Your task to perform on an android device: turn off notifications in google photos Image 0: 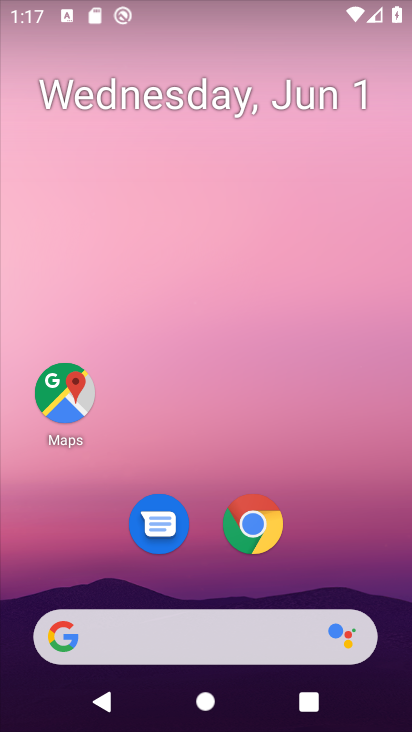
Step 0: drag from (208, 438) to (229, 42)
Your task to perform on an android device: turn off notifications in google photos Image 1: 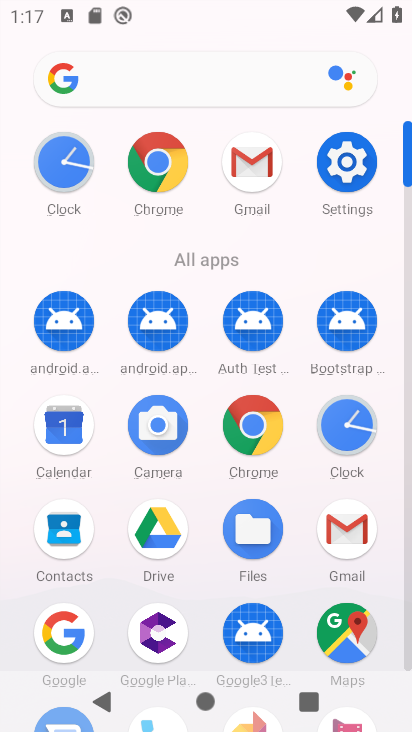
Step 1: drag from (290, 405) to (302, 117)
Your task to perform on an android device: turn off notifications in google photos Image 2: 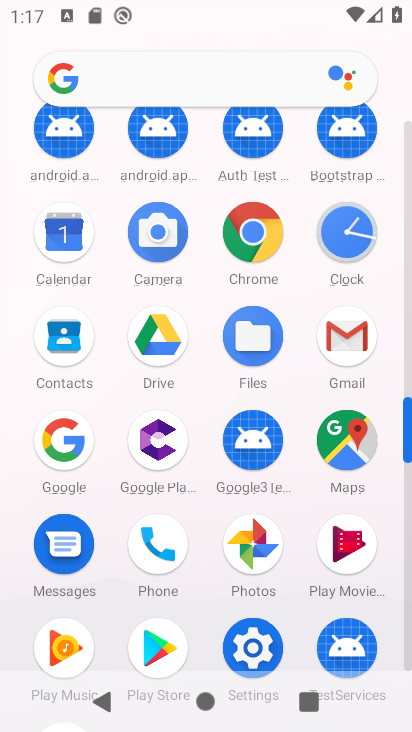
Step 2: click (254, 534)
Your task to perform on an android device: turn off notifications in google photos Image 3: 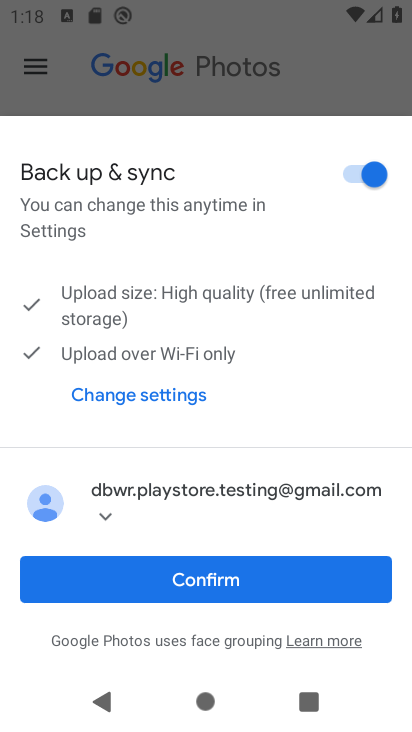
Step 3: click (241, 573)
Your task to perform on an android device: turn off notifications in google photos Image 4: 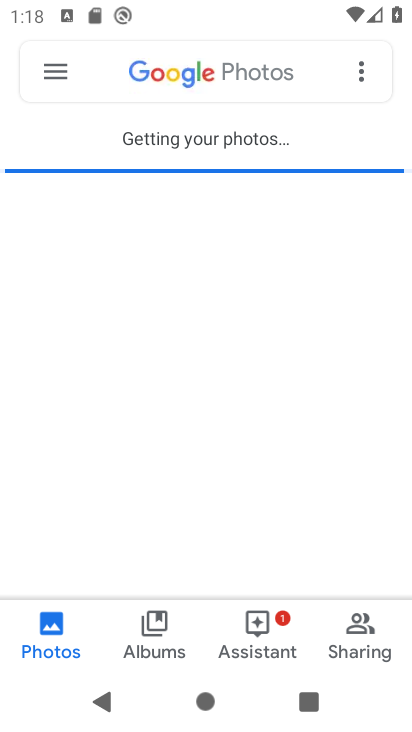
Step 4: click (57, 67)
Your task to perform on an android device: turn off notifications in google photos Image 5: 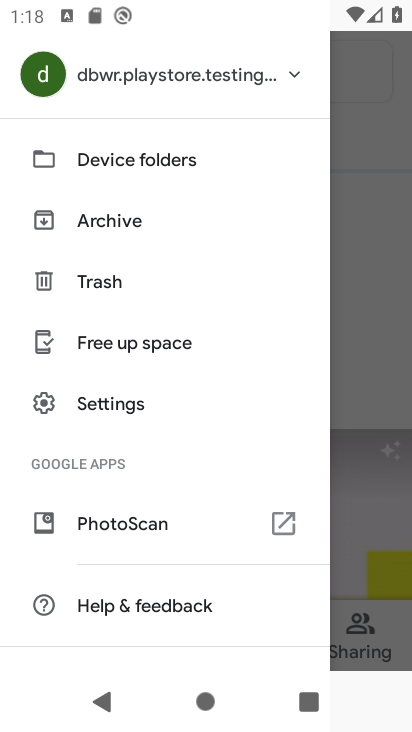
Step 5: drag from (195, 401) to (202, 226)
Your task to perform on an android device: turn off notifications in google photos Image 6: 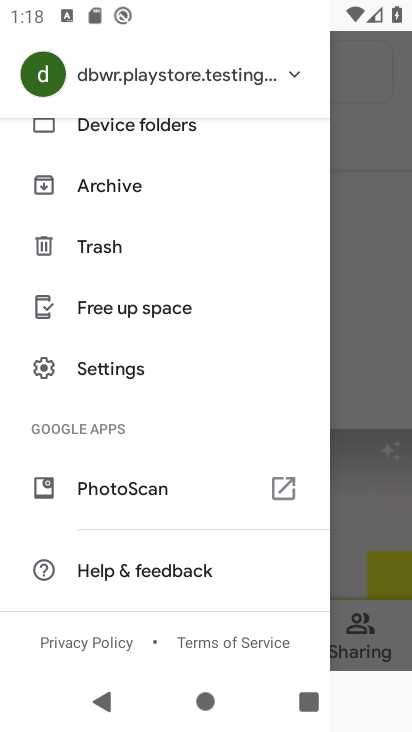
Step 6: drag from (162, 190) to (117, 462)
Your task to perform on an android device: turn off notifications in google photos Image 7: 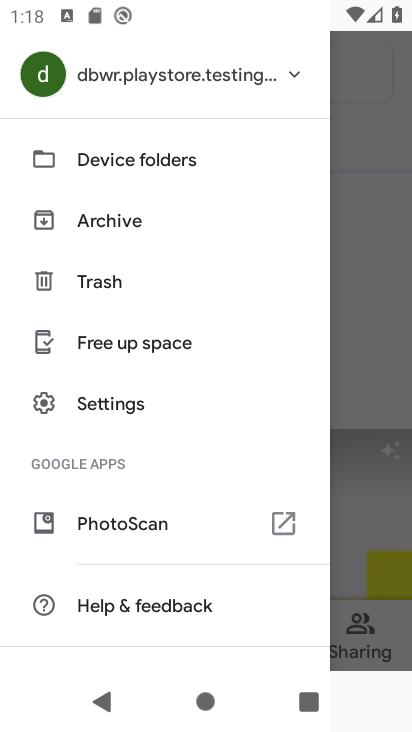
Step 7: click (118, 394)
Your task to perform on an android device: turn off notifications in google photos Image 8: 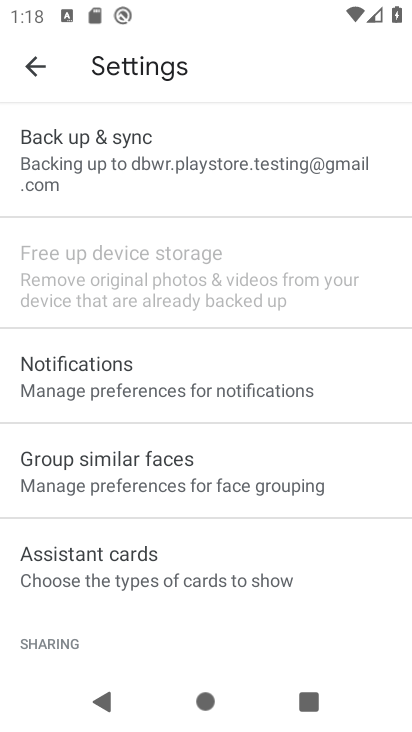
Step 8: click (127, 383)
Your task to perform on an android device: turn off notifications in google photos Image 9: 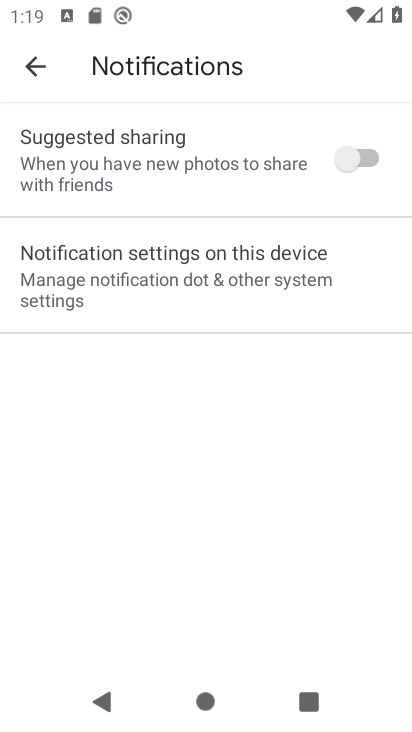
Step 9: click (193, 273)
Your task to perform on an android device: turn off notifications in google photos Image 10: 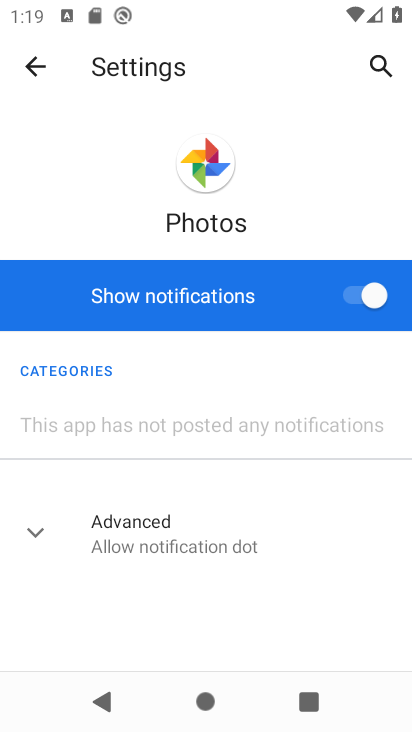
Step 10: click (362, 294)
Your task to perform on an android device: turn off notifications in google photos Image 11: 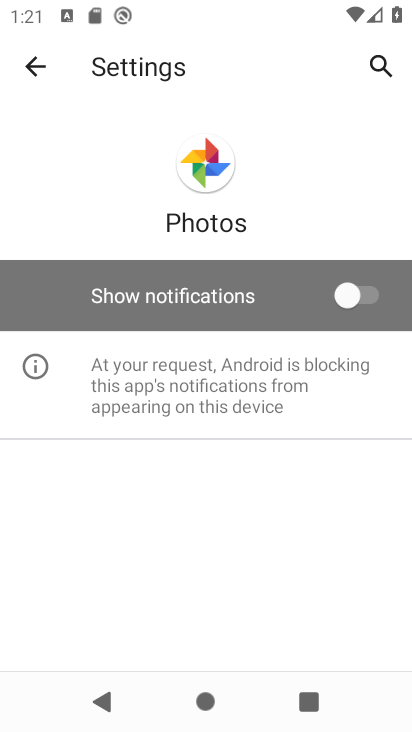
Step 11: task complete